Your task to perform on an android device: What's on my calendar tomorrow? Image 0: 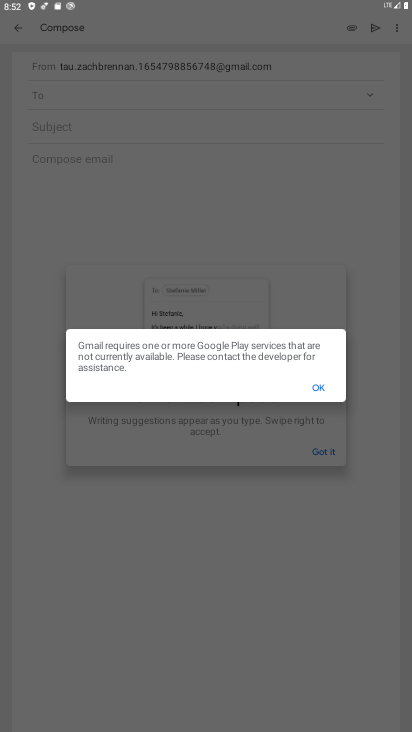
Step 0: press home button
Your task to perform on an android device: What's on my calendar tomorrow? Image 1: 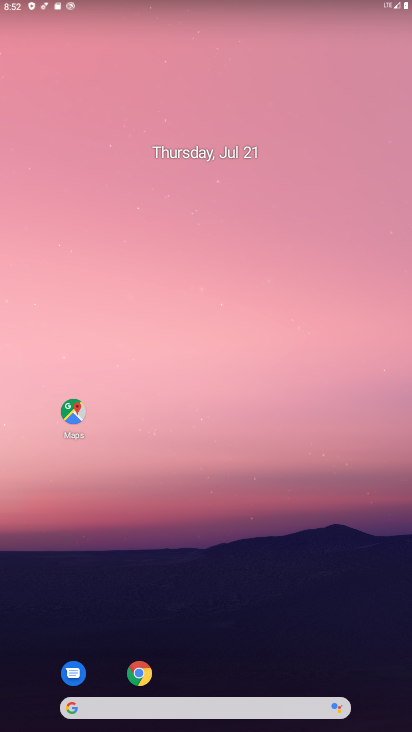
Step 1: drag from (230, 647) to (267, 226)
Your task to perform on an android device: What's on my calendar tomorrow? Image 2: 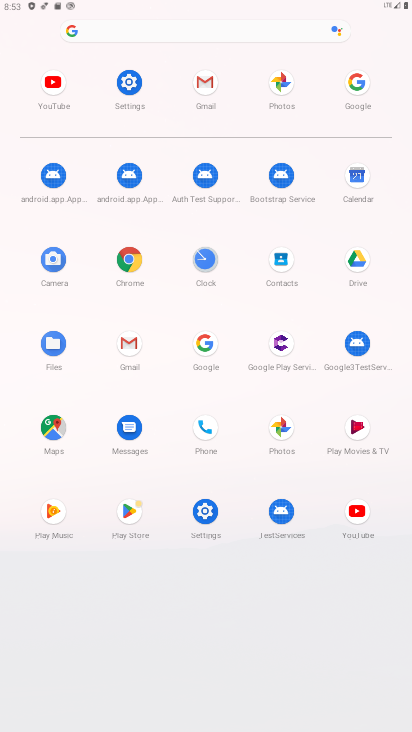
Step 2: click (351, 188)
Your task to perform on an android device: What's on my calendar tomorrow? Image 3: 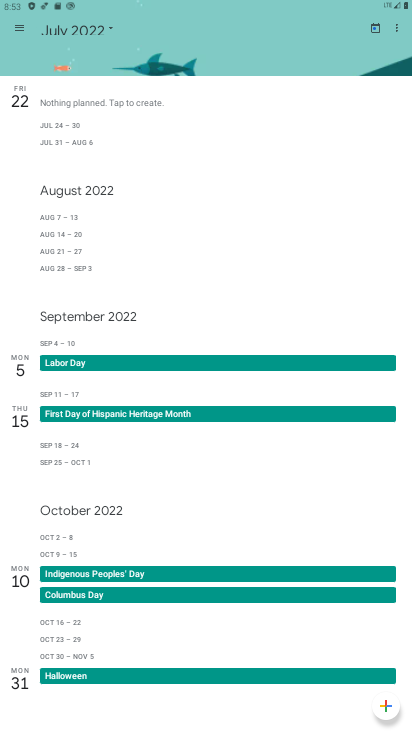
Step 3: click (107, 30)
Your task to perform on an android device: What's on my calendar tomorrow? Image 4: 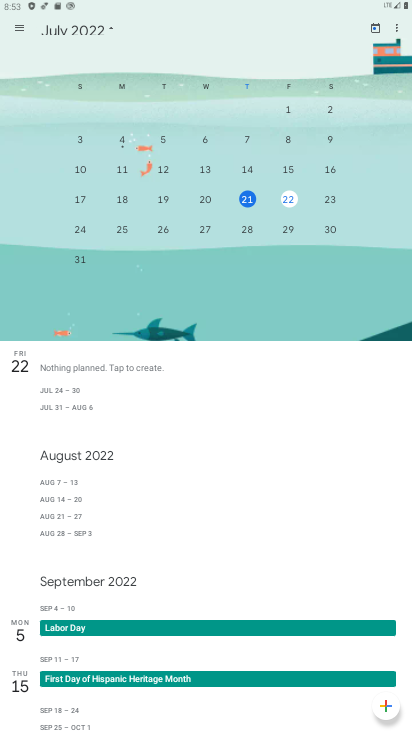
Step 4: click (293, 207)
Your task to perform on an android device: What's on my calendar tomorrow? Image 5: 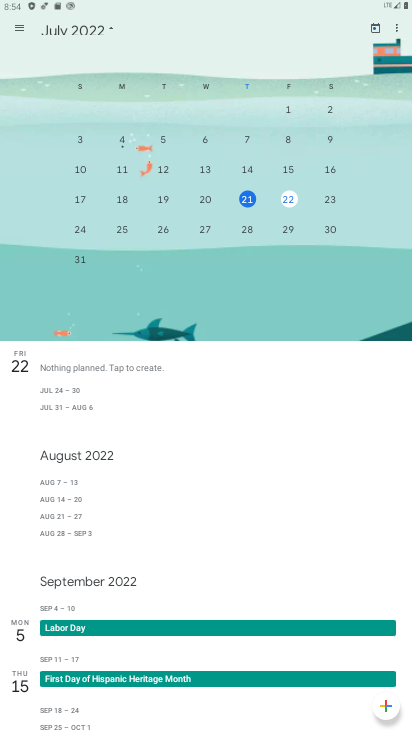
Step 5: task complete